Your task to perform on an android device: open a new tab in the chrome app Image 0: 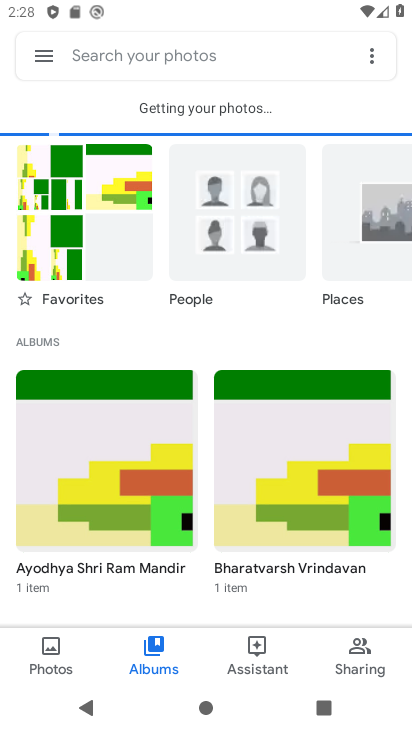
Step 0: press home button
Your task to perform on an android device: open a new tab in the chrome app Image 1: 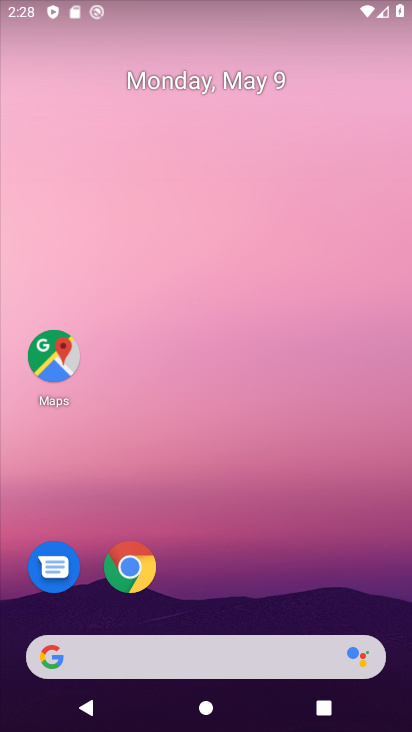
Step 1: click (128, 562)
Your task to perform on an android device: open a new tab in the chrome app Image 2: 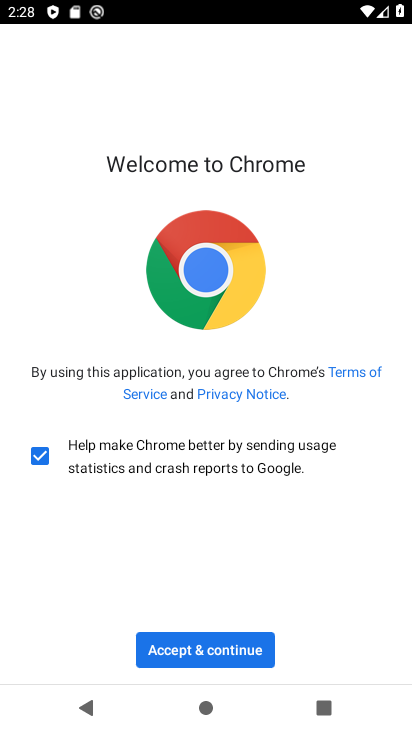
Step 2: click (185, 649)
Your task to perform on an android device: open a new tab in the chrome app Image 3: 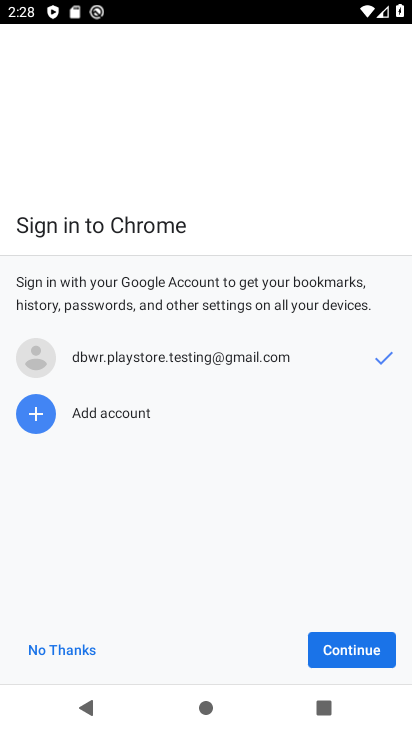
Step 3: click (376, 648)
Your task to perform on an android device: open a new tab in the chrome app Image 4: 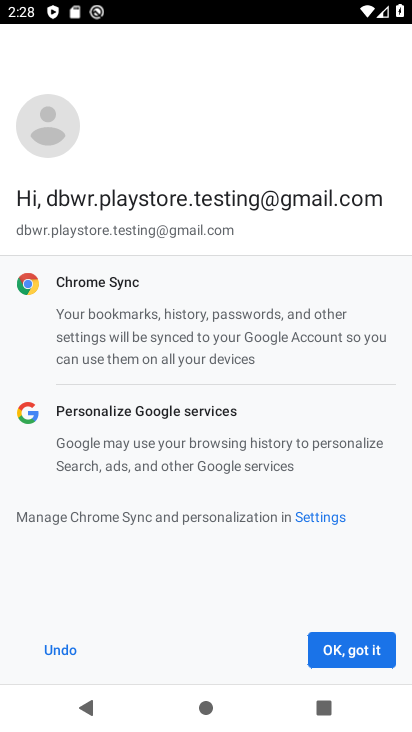
Step 4: click (376, 648)
Your task to perform on an android device: open a new tab in the chrome app Image 5: 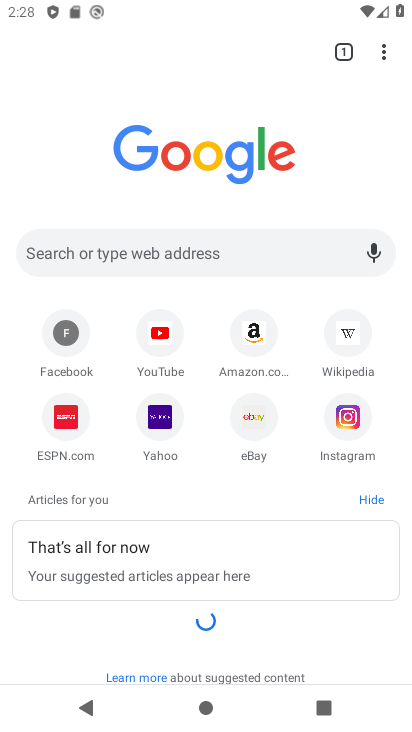
Step 5: click (344, 52)
Your task to perform on an android device: open a new tab in the chrome app Image 6: 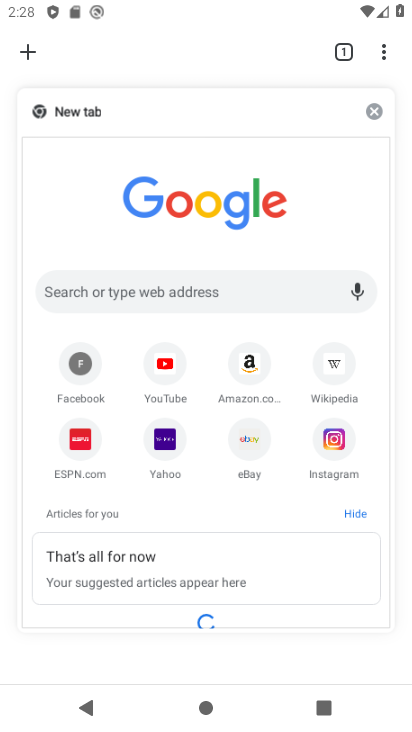
Step 6: click (31, 54)
Your task to perform on an android device: open a new tab in the chrome app Image 7: 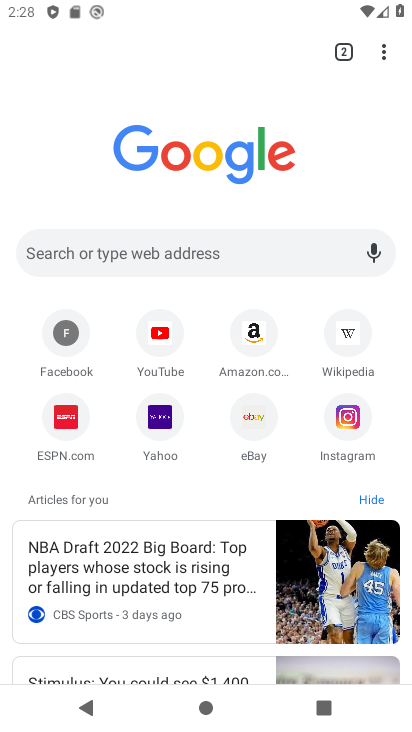
Step 7: task complete